Your task to perform on an android device: add a contact Image 0: 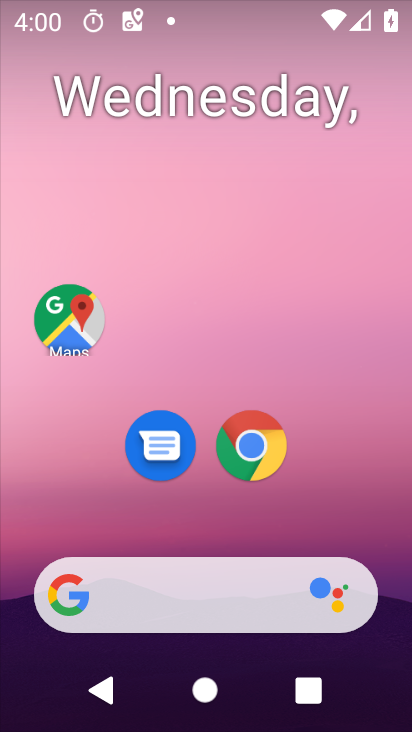
Step 0: drag from (224, 514) to (226, 119)
Your task to perform on an android device: add a contact Image 1: 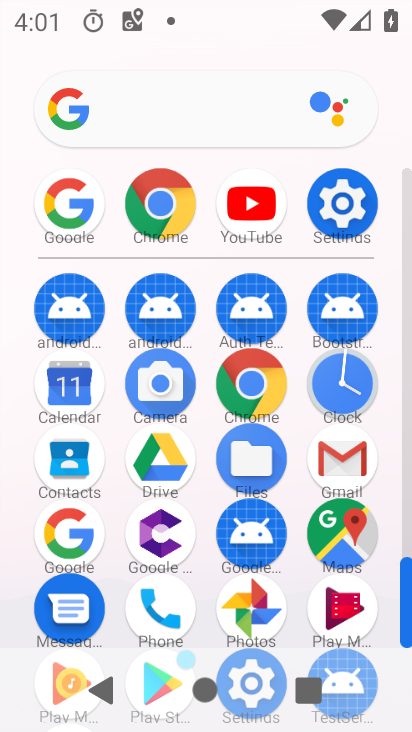
Step 1: click (71, 444)
Your task to perform on an android device: add a contact Image 2: 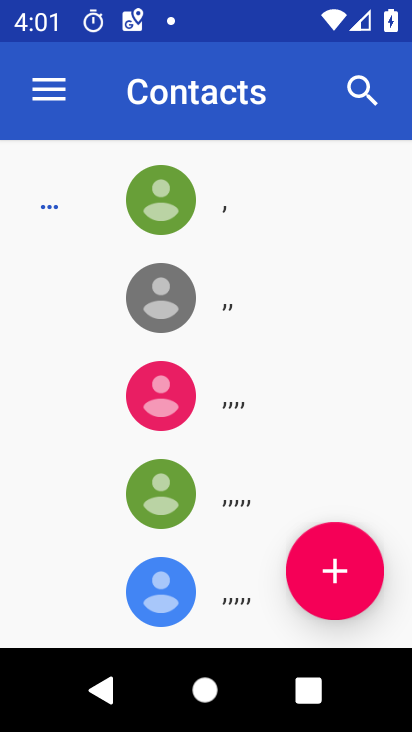
Step 2: click (332, 574)
Your task to perform on an android device: add a contact Image 3: 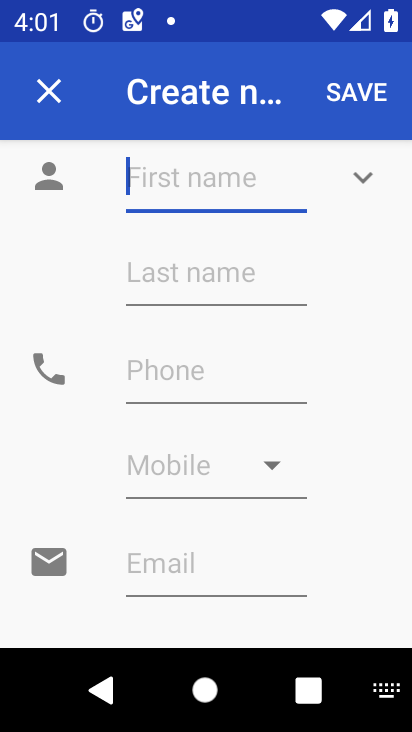
Step 3: type "saff"
Your task to perform on an android device: add a contact Image 4: 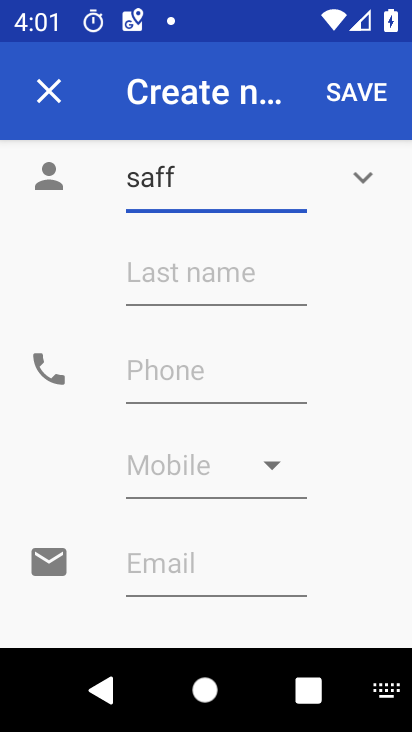
Step 4: click (337, 147)
Your task to perform on an android device: add a contact Image 5: 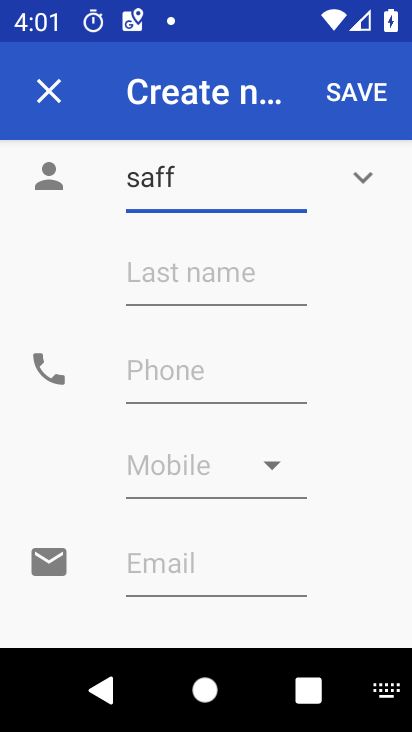
Step 5: click (348, 101)
Your task to perform on an android device: add a contact Image 6: 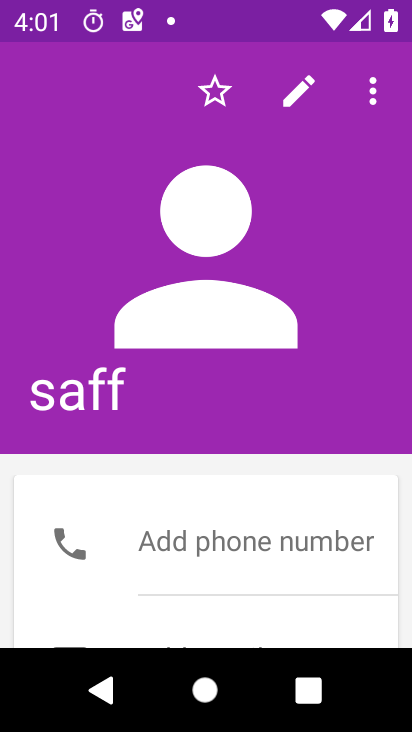
Step 6: task complete